Your task to perform on an android device: Open location settings Image 0: 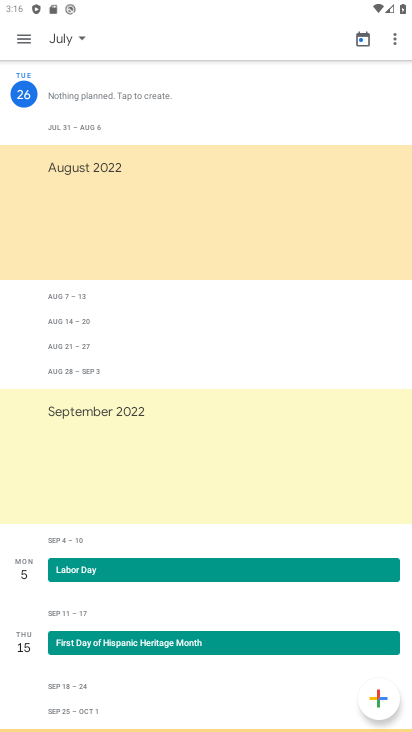
Step 0: press home button
Your task to perform on an android device: Open location settings Image 1: 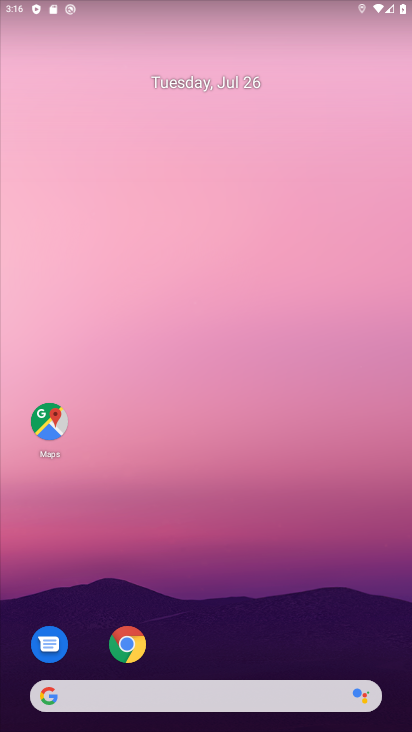
Step 1: drag from (198, 596) to (270, 47)
Your task to perform on an android device: Open location settings Image 2: 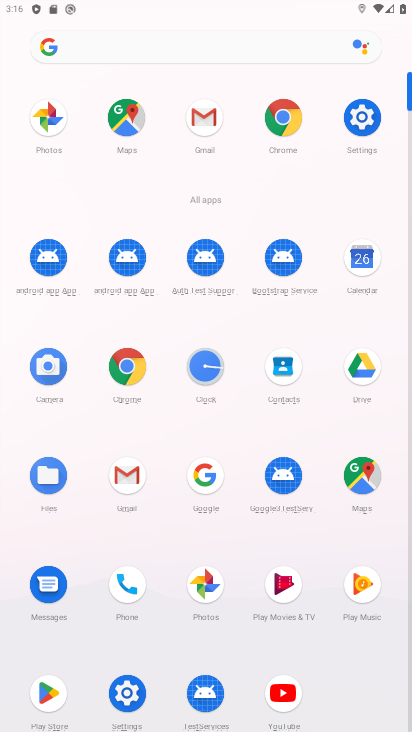
Step 2: click (128, 697)
Your task to perform on an android device: Open location settings Image 3: 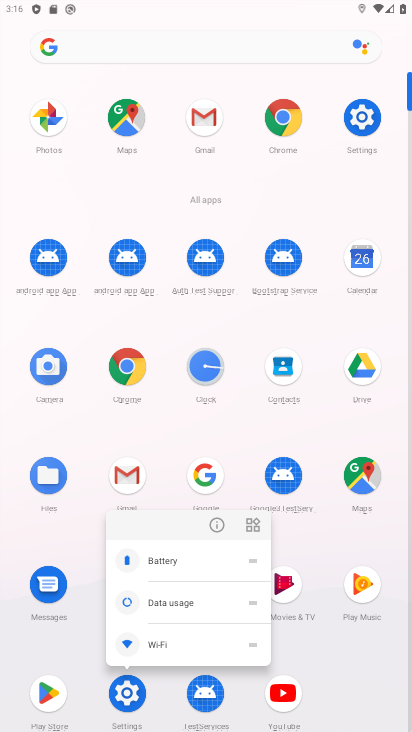
Step 3: click (217, 527)
Your task to perform on an android device: Open location settings Image 4: 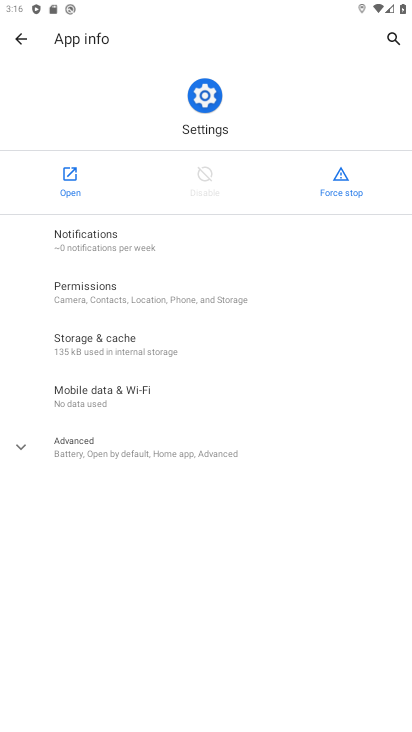
Step 4: click (82, 170)
Your task to perform on an android device: Open location settings Image 5: 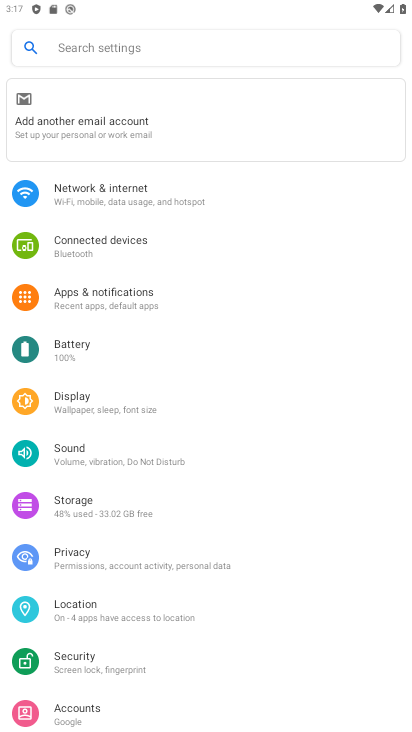
Step 5: click (89, 609)
Your task to perform on an android device: Open location settings Image 6: 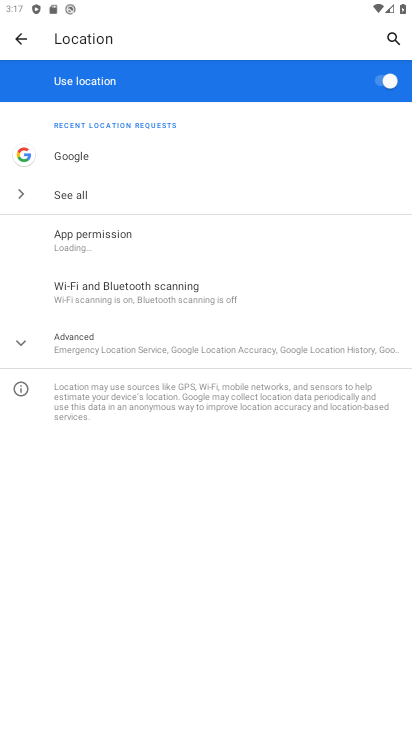
Step 6: drag from (138, 587) to (182, 369)
Your task to perform on an android device: Open location settings Image 7: 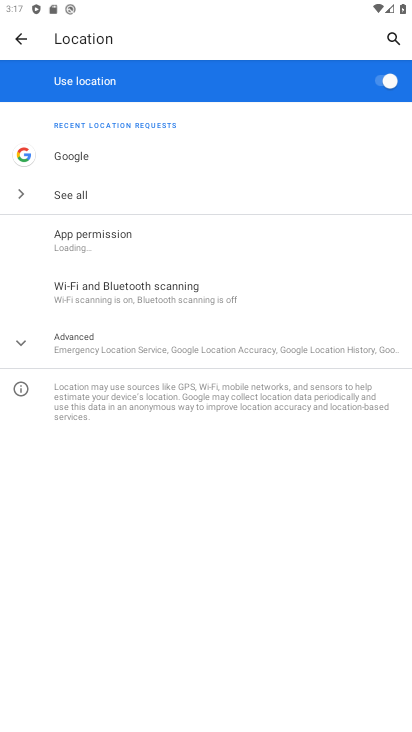
Step 7: click (83, 346)
Your task to perform on an android device: Open location settings Image 8: 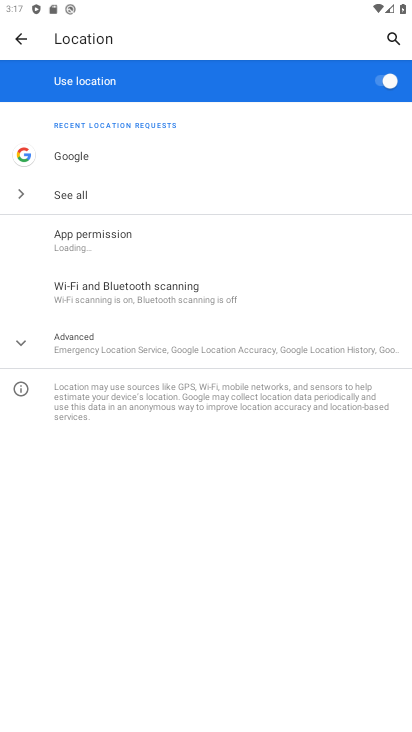
Step 8: click (83, 346)
Your task to perform on an android device: Open location settings Image 9: 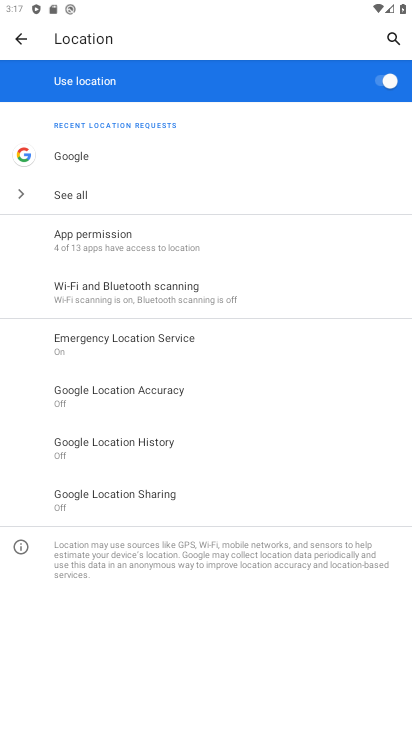
Step 9: task complete